Your task to perform on an android device: uninstall "Mercado Libre" Image 0: 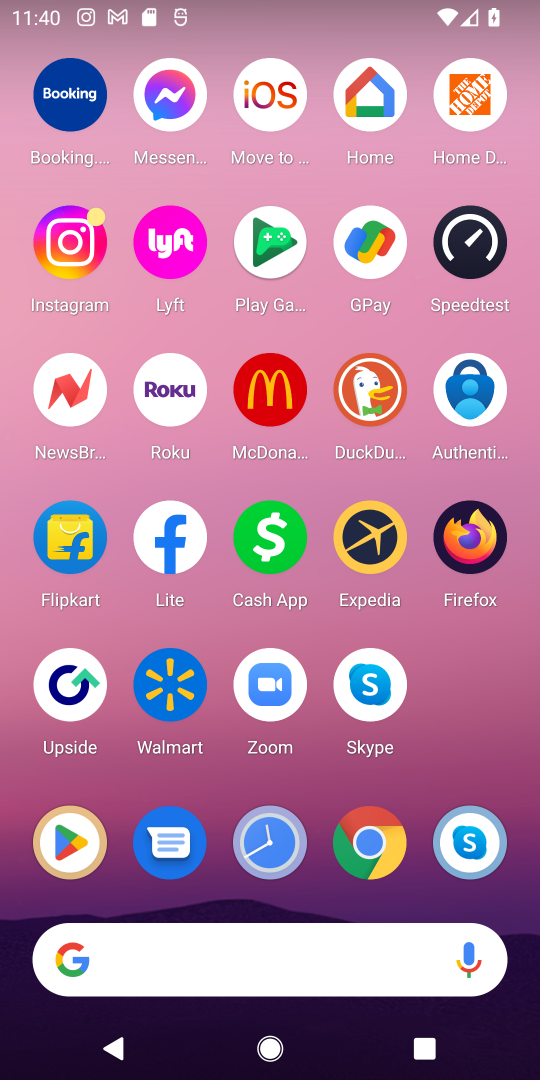
Step 0: click (77, 847)
Your task to perform on an android device: uninstall "Mercado Libre" Image 1: 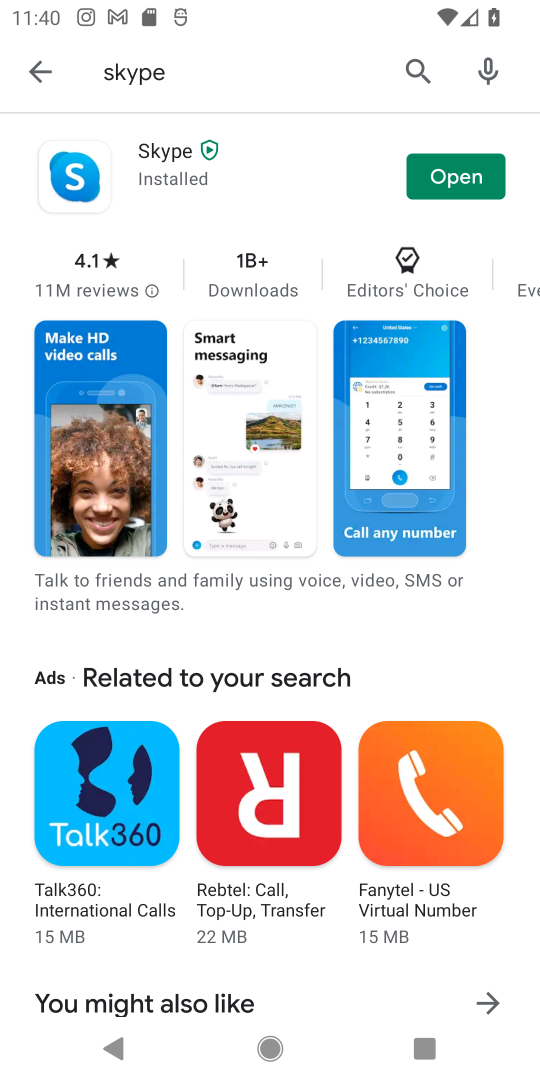
Step 1: click (422, 69)
Your task to perform on an android device: uninstall "Mercado Libre" Image 2: 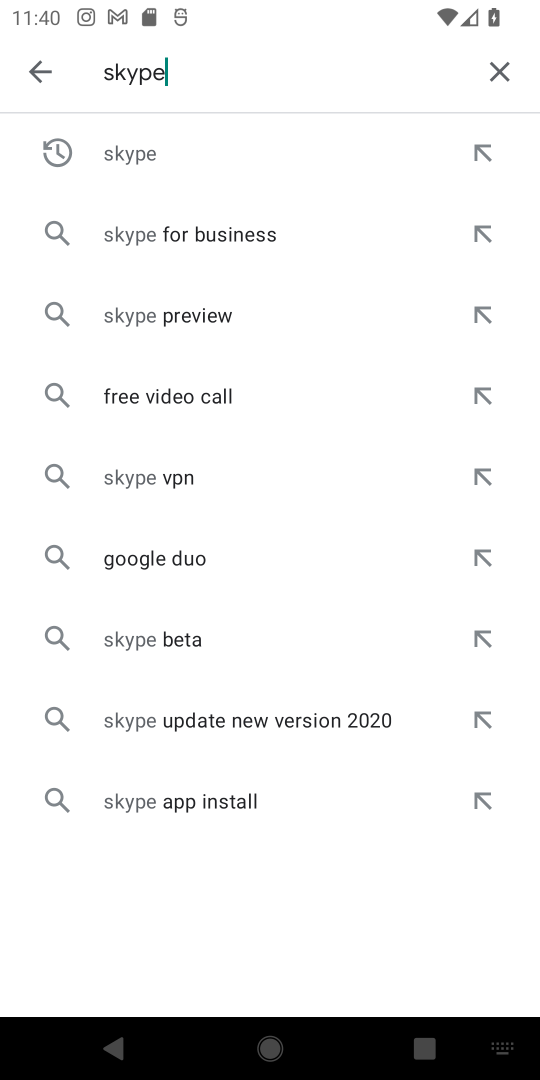
Step 2: click (493, 68)
Your task to perform on an android device: uninstall "Mercado Libre" Image 3: 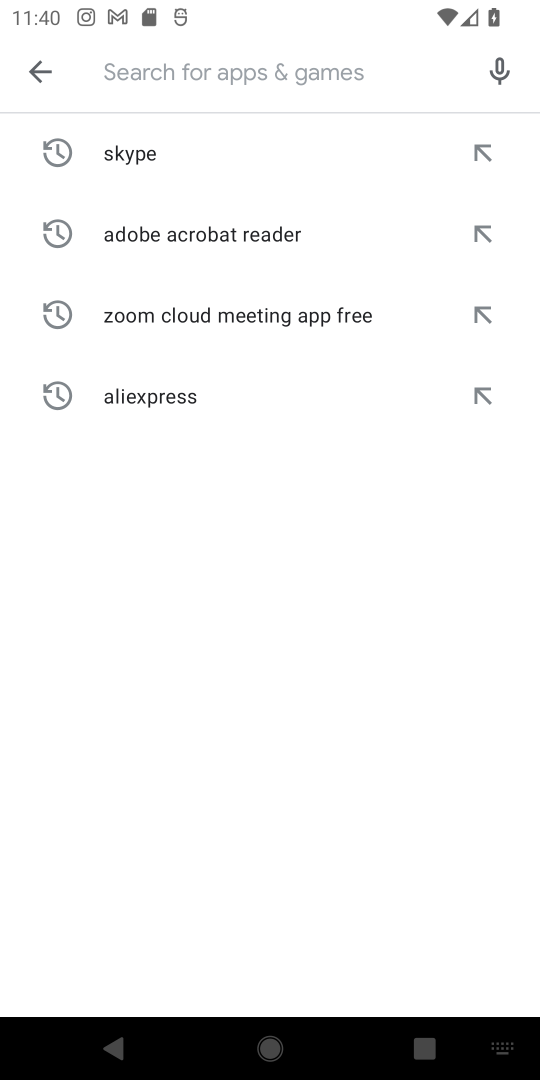
Step 3: click (202, 75)
Your task to perform on an android device: uninstall "Mercado Libre" Image 4: 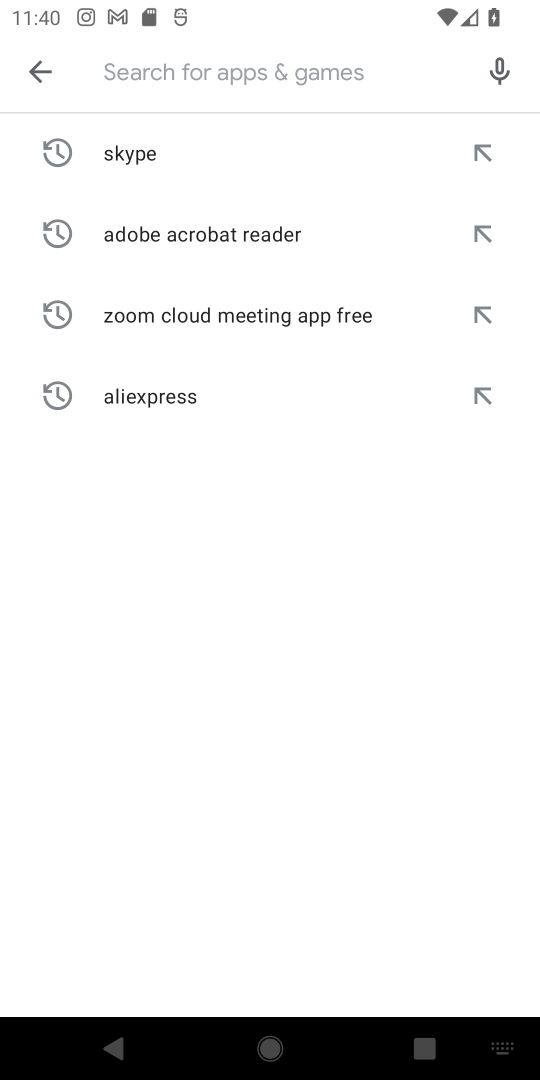
Step 4: type "mercado libre"
Your task to perform on an android device: uninstall "Mercado Libre" Image 5: 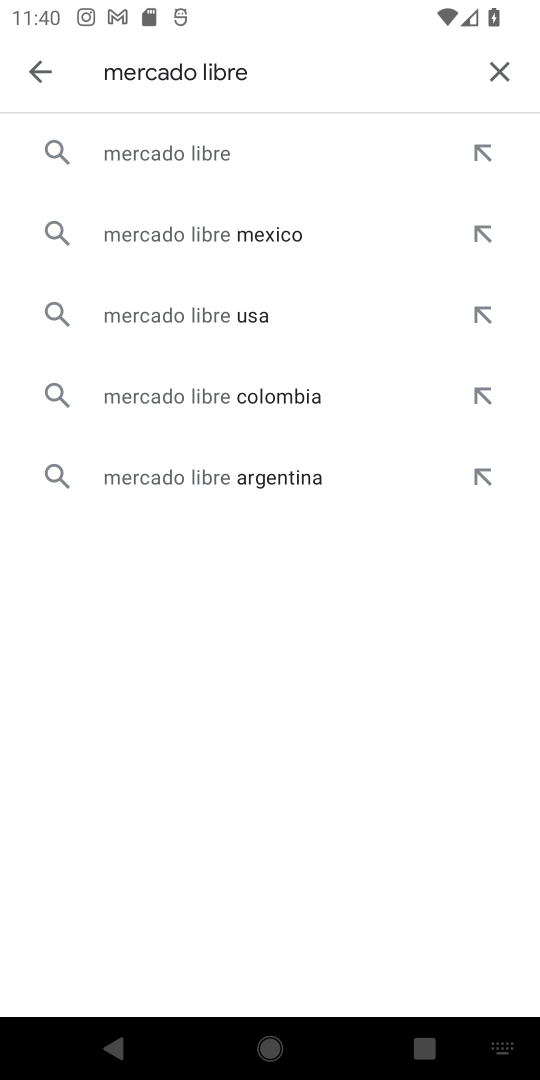
Step 5: click (193, 147)
Your task to perform on an android device: uninstall "Mercado Libre" Image 6: 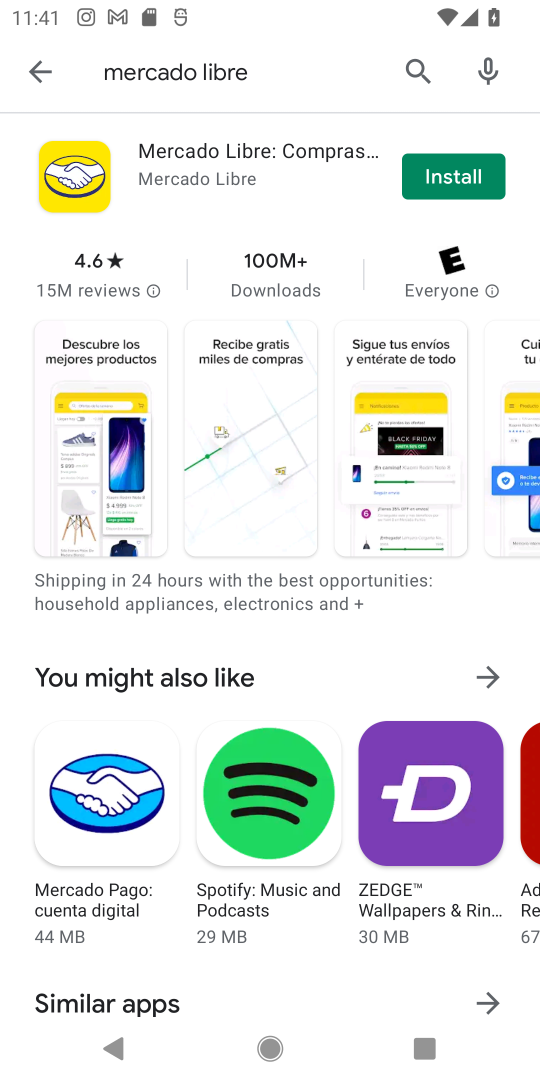
Step 6: click (247, 171)
Your task to perform on an android device: uninstall "Mercado Libre" Image 7: 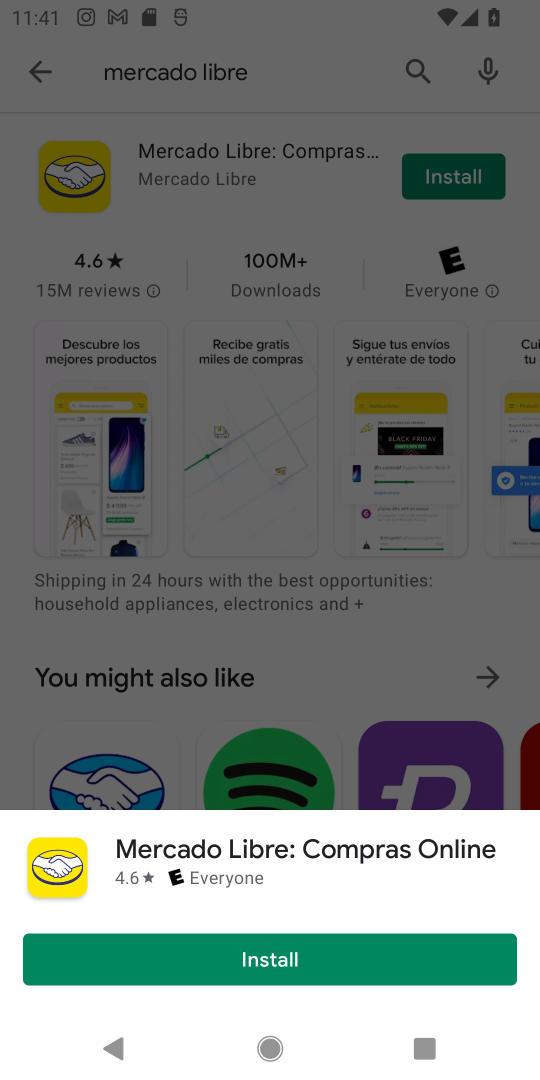
Step 7: task complete